Your task to perform on an android device: Go to Google maps Image 0: 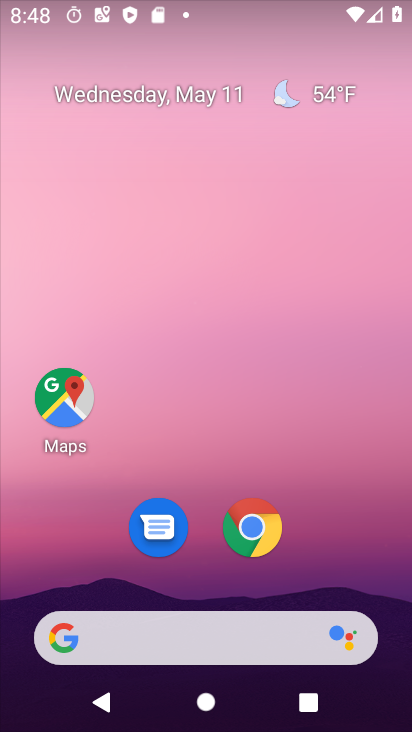
Step 0: drag from (206, 578) to (182, 22)
Your task to perform on an android device: Go to Google maps Image 1: 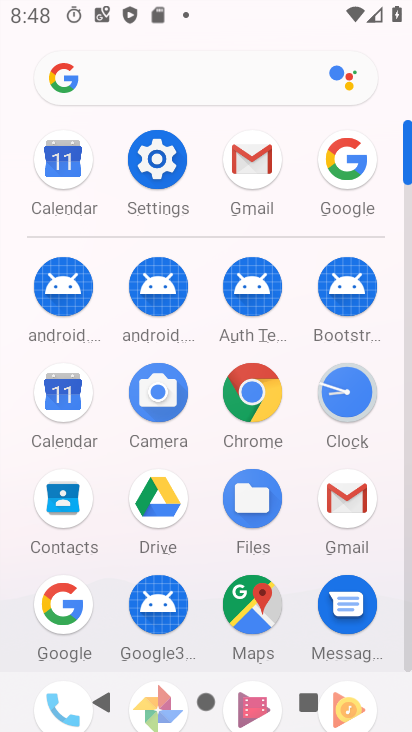
Step 1: click (254, 611)
Your task to perform on an android device: Go to Google maps Image 2: 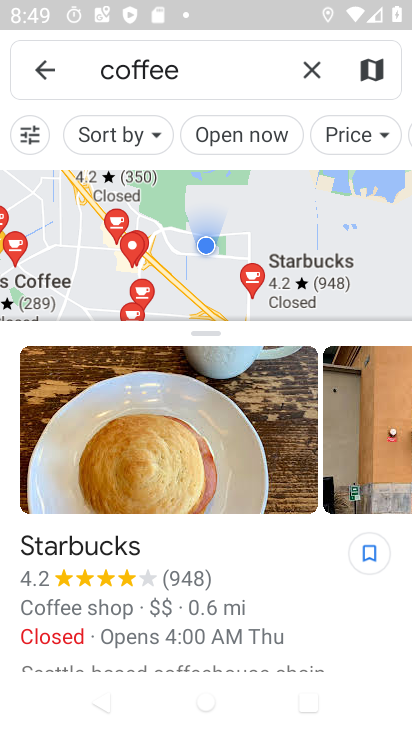
Step 2: task complete